Your task to perform on an android device: turn off location Image 0: 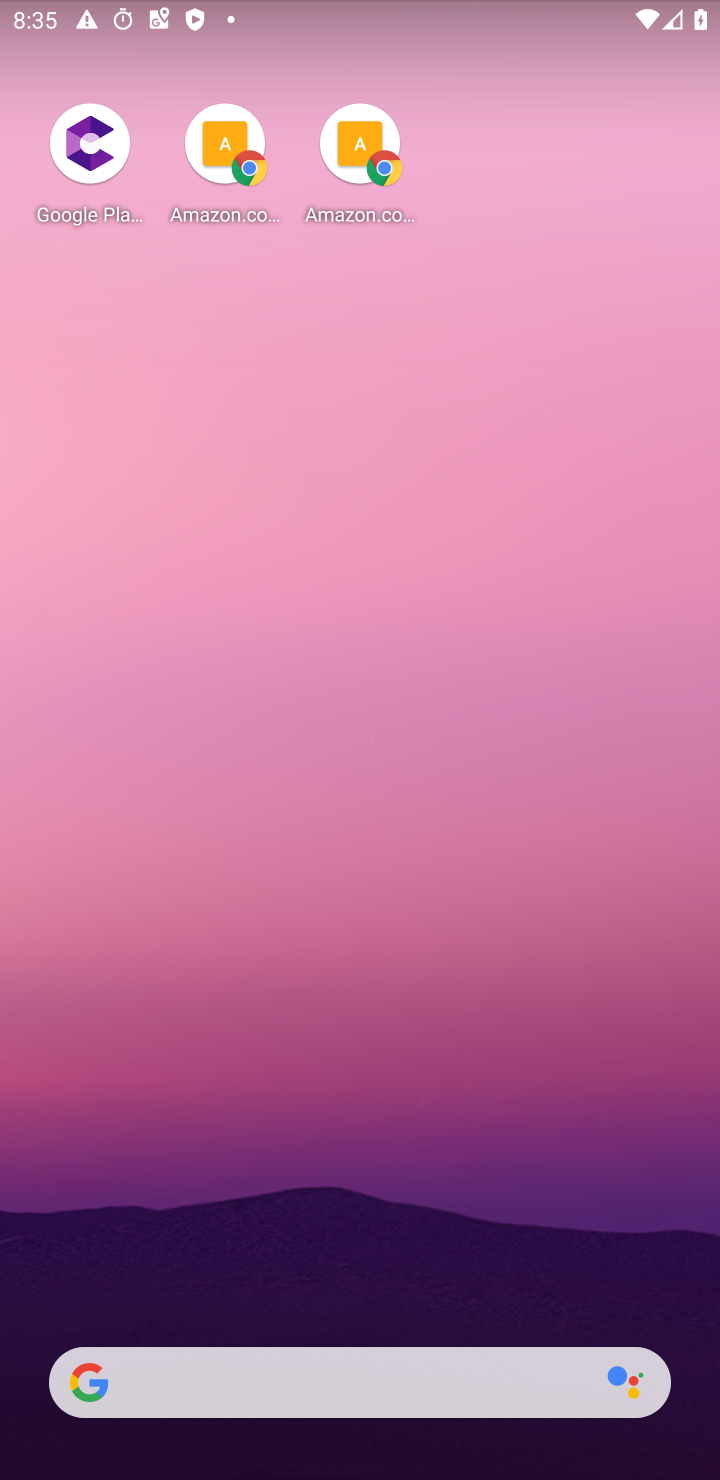
Step 0: press home button
Your task to perform on an android device: turn off location Image 1: 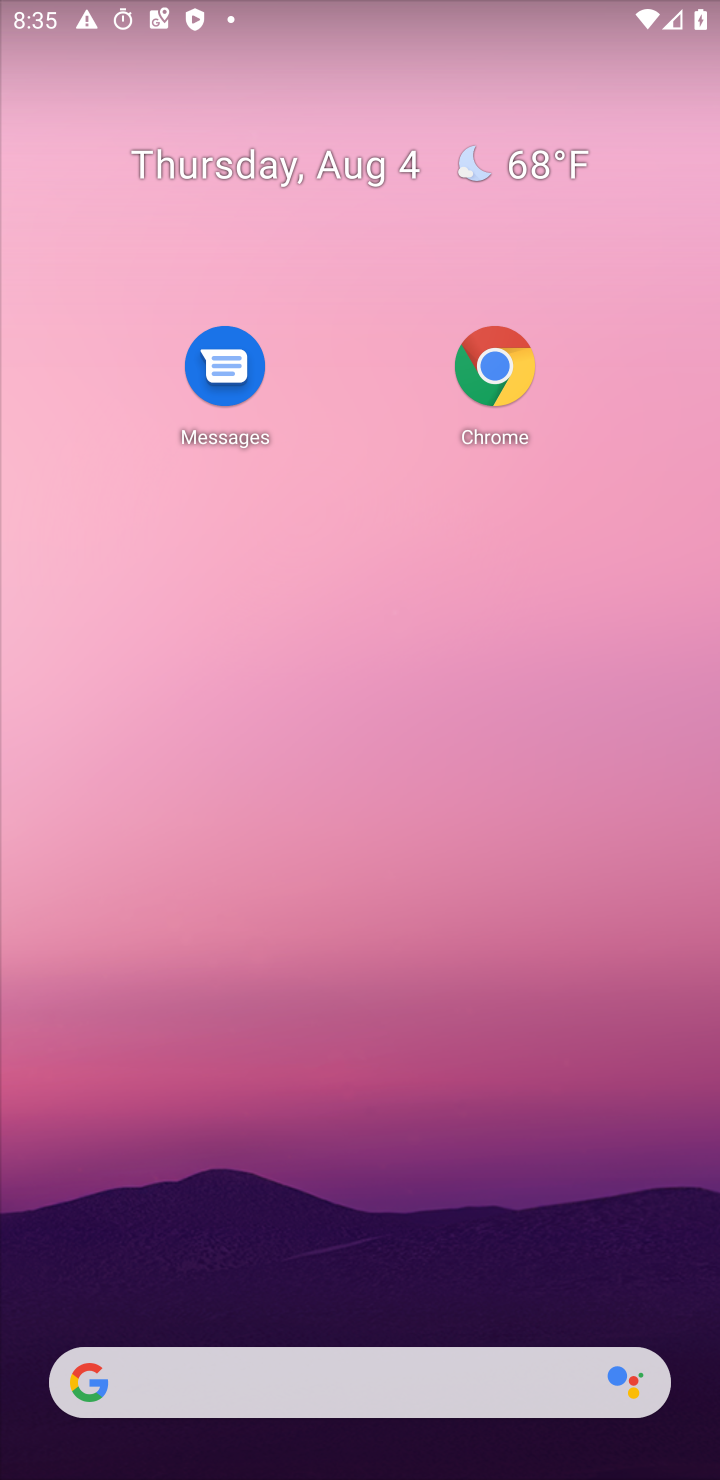
Step 1: drag from (342, 1147) to (213, 386)
Your task to perform on an android device: turn off location Image 2: 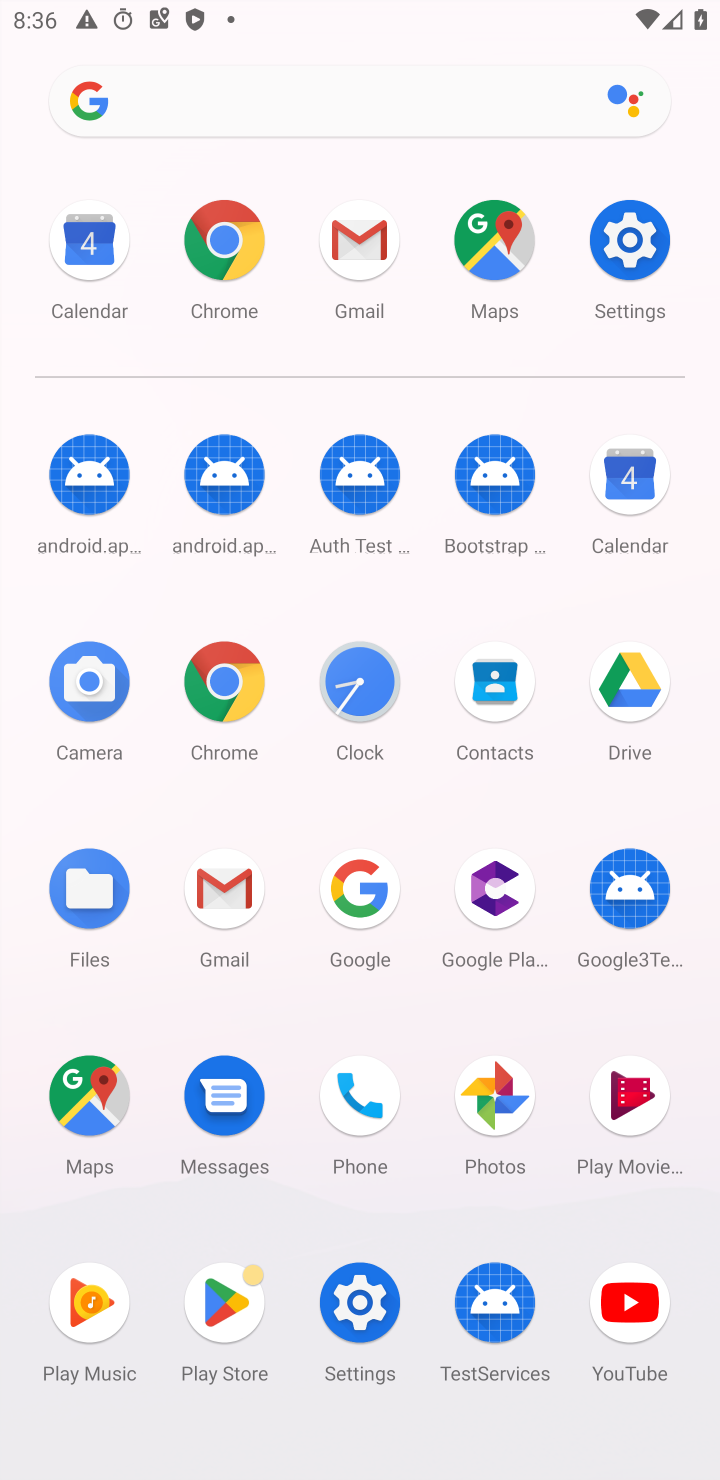
Step 2: click (596, 248)
Your task to perform on an android device: turn off location Image 3: 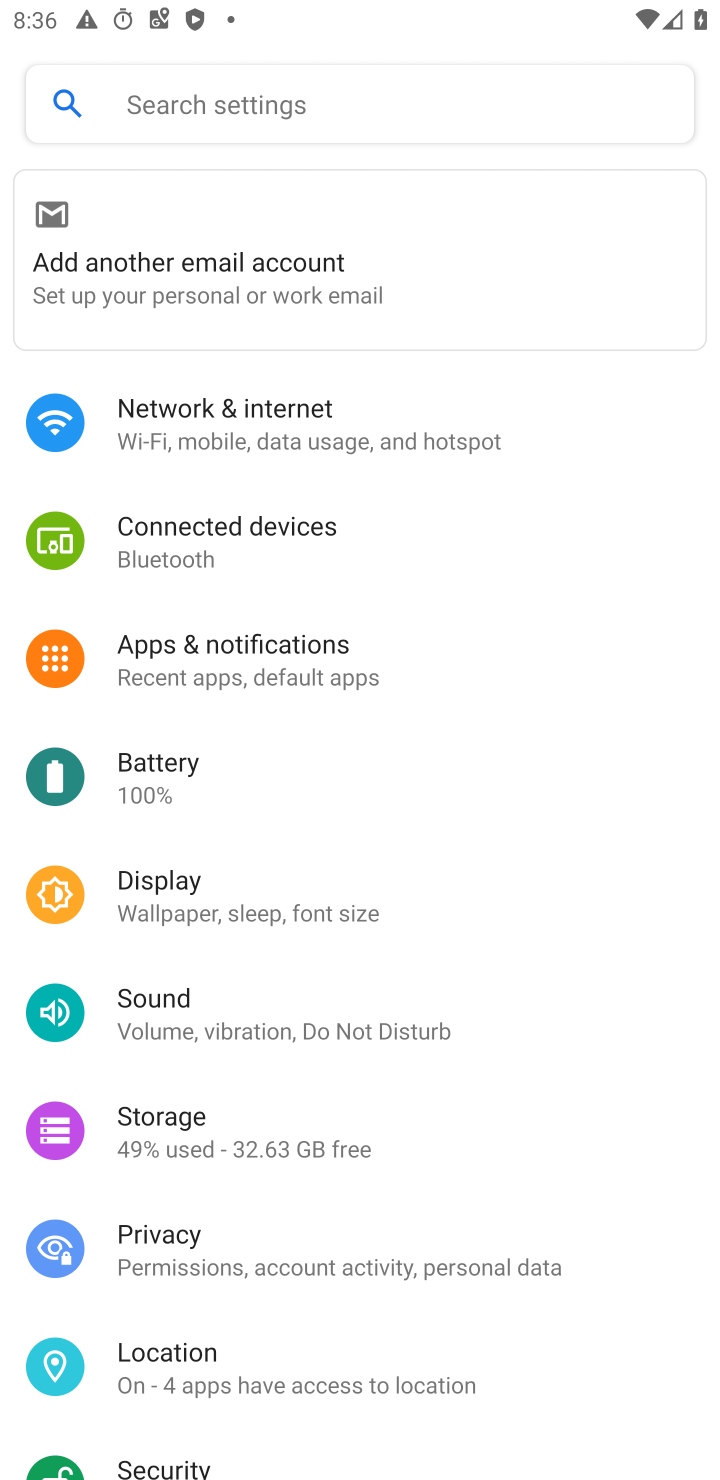
Step 3: click (252, 1361)
Your task to perform on an android device: turn off location Image 4: 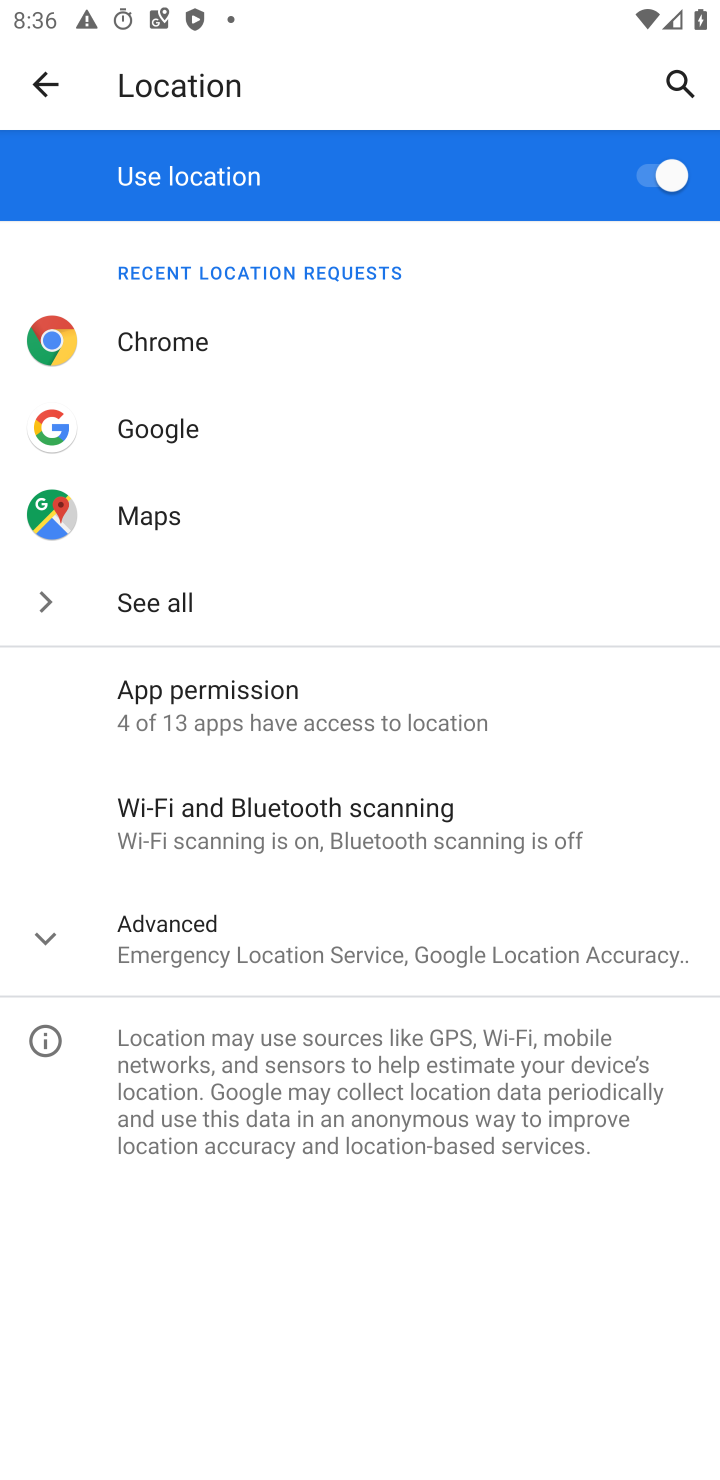
Step 4: click (625, 174)
Your task to perform on an android device: turn off location Image 5: 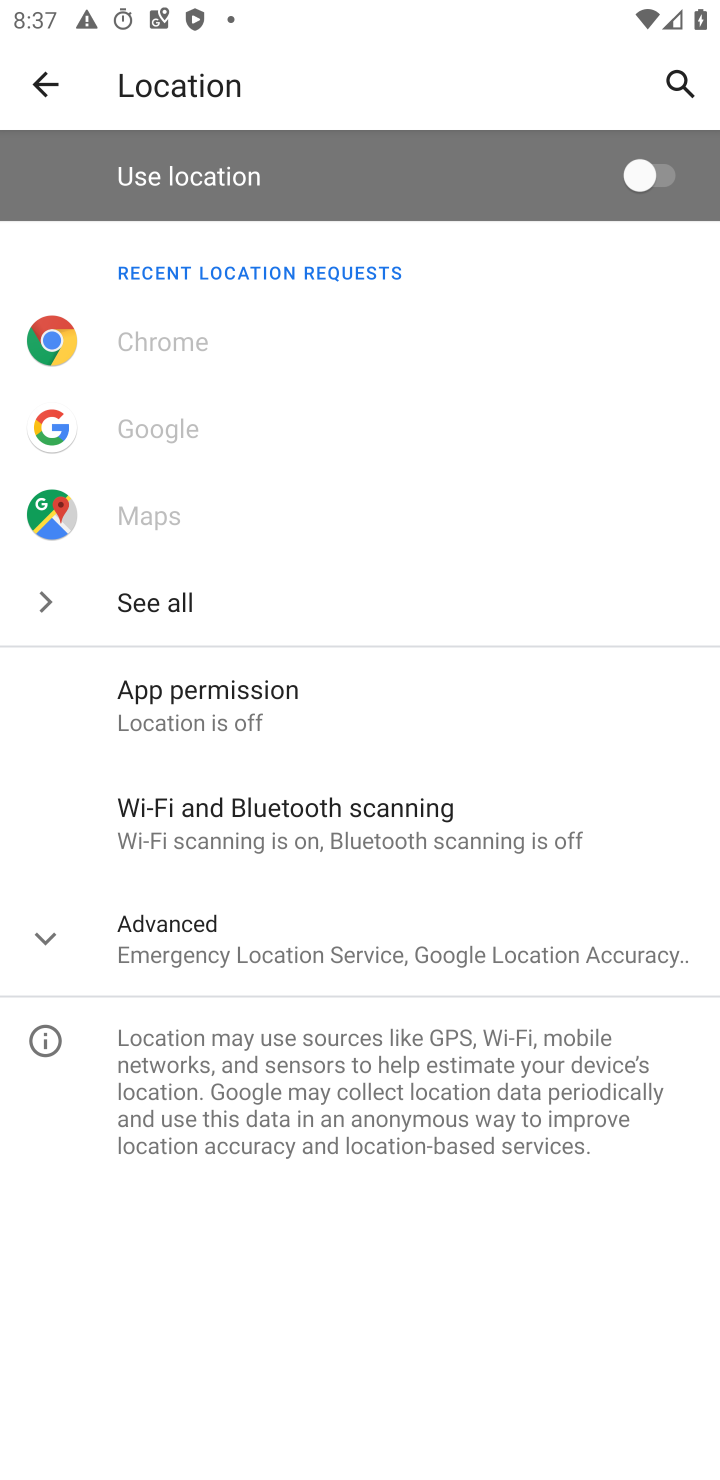
Step 5: task complete